Your task to perform on an android device: Open Google Chrome and click the shortcut for Amazon.com Image 0: 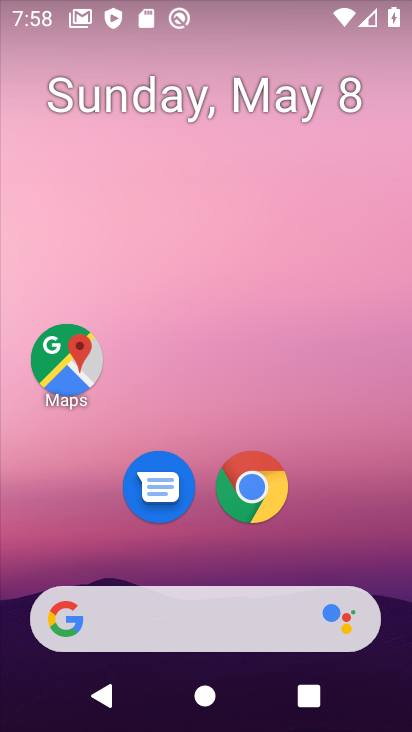
Step 0: click (252, 495)
Your task to perform on an android device: Open Google Chrome and click the shortcut for Amazon.com Image 1: 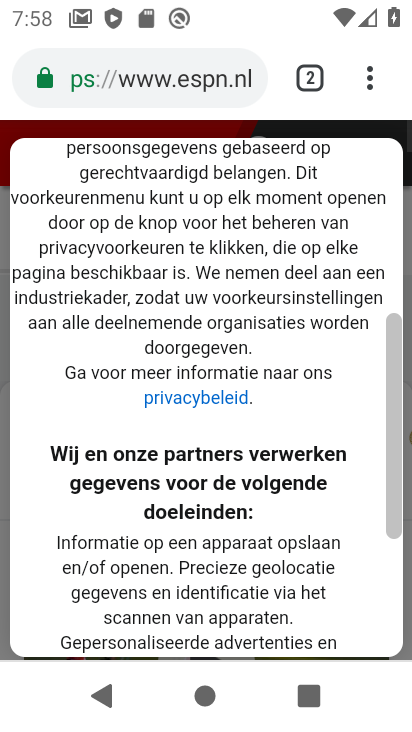
Step 1: click (321, 92)
Your task to perform on an android device: Open Google Chrome and click the shortcut for Amazon.com Image 2: 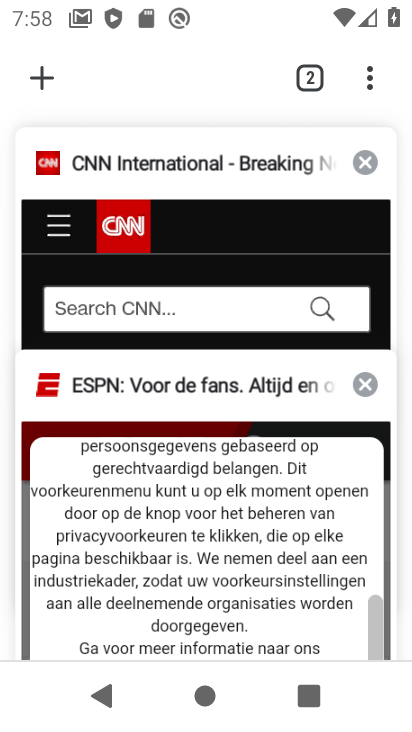
Step 2: click (45, 76)
Your task to perform on an android device: Open Google Chrome and click the shortcut for Amazon.com Image 3: 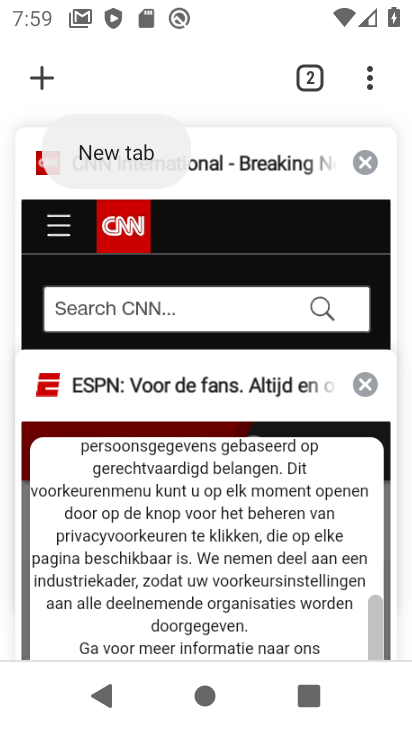
Step 3: click (113, 163)
Your task to perform on an android device: Open Google Chrome and click the shortcut for Amazon.com Image 4: 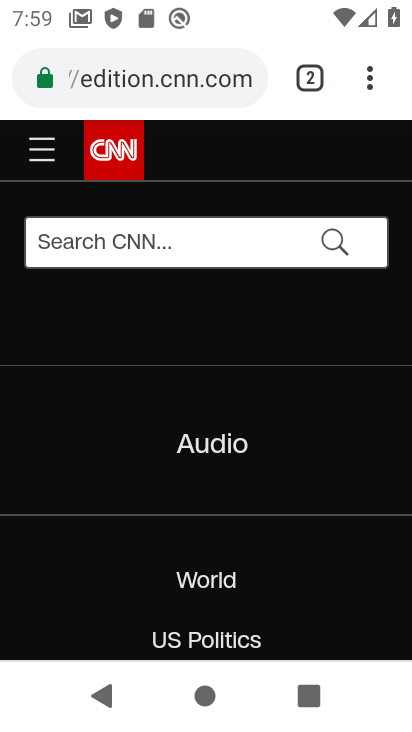
Step 4: click (313, 83)
Your task to perform on an android device: Open Google Chrome and click the shortcut for Amazon.com Image 5: 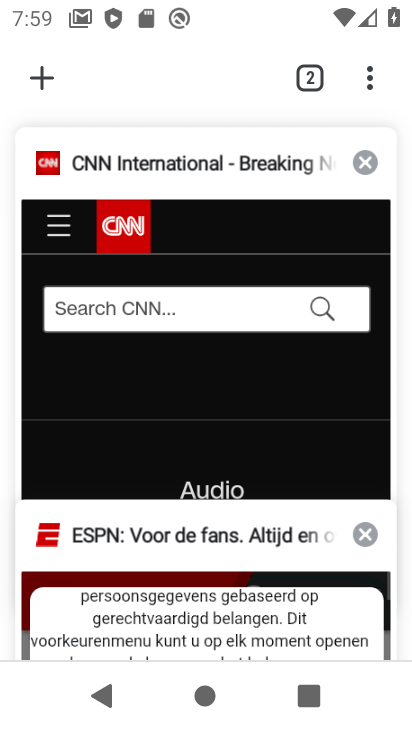
Step 5: click (51, 75)
Your task to perform on an android device: Open Google Chrome and click the shortcut for Amazon.com Image 6: 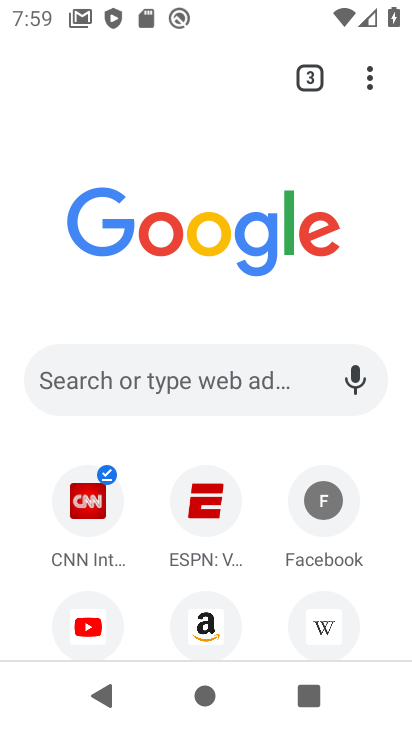
Step 6: click (214, 616)
Your task to perform on an android device: Open Google Chrome and click the shortcut for Amazon.com Image 7: 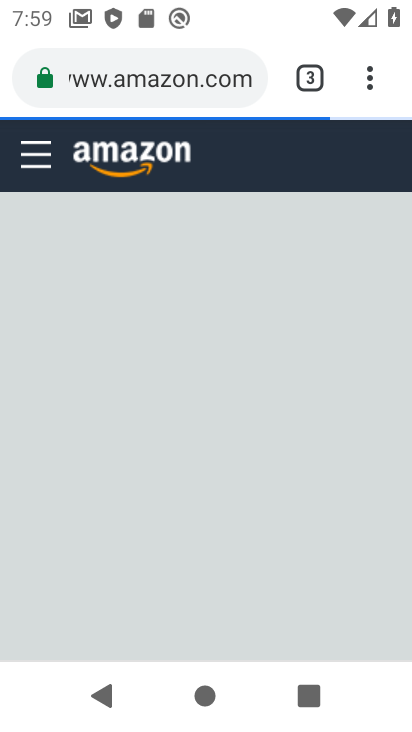
Step 7: task complete